Your task to perform on an android device: Open internet settings Image 0: 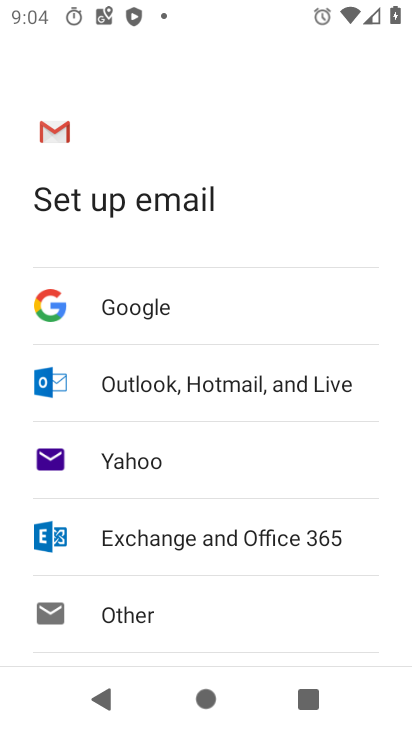
Step 0: press home button
Your task to perform on an android device: Open internet settings Image 1: 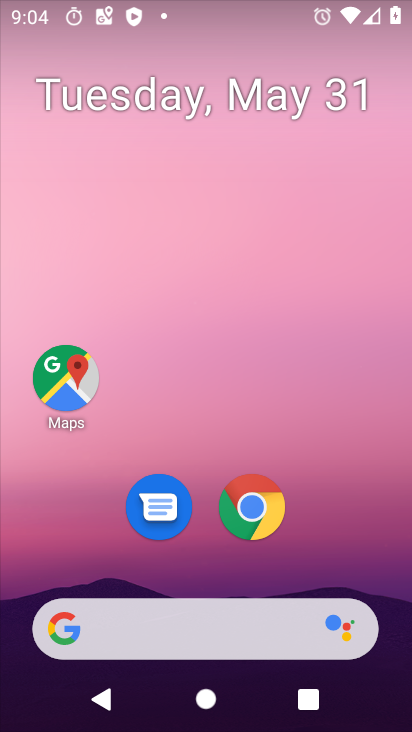
Step 1: drag from (341, 570) to (314, 7)
Your task to perform on an android device: Open internet settings Image 2: 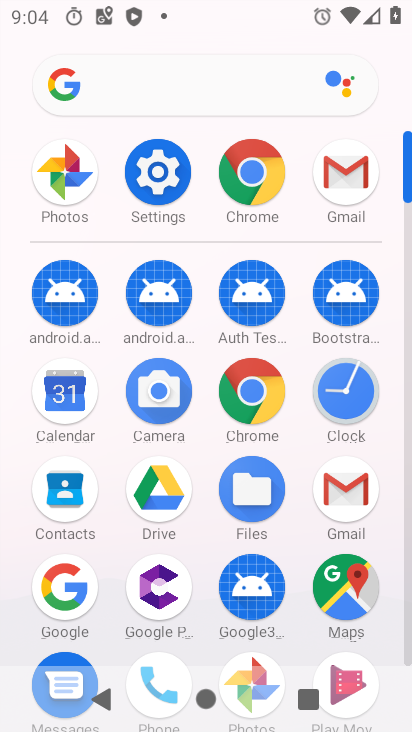
Step 2: click (160, 178)
Your task to perform on an android device: Open internet settings Image 3: 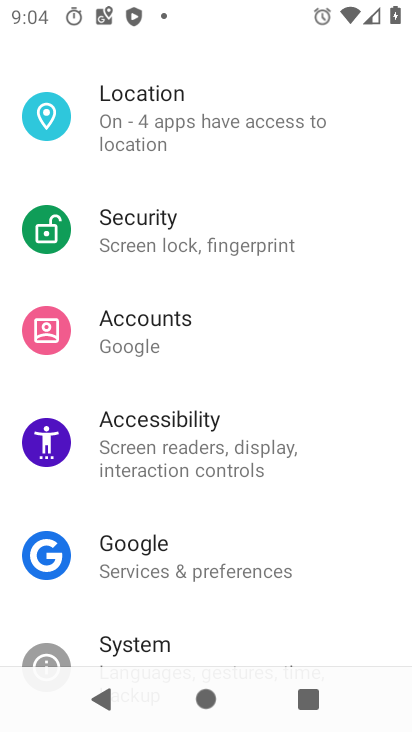
Step 3: drag from (267, 220) to (284, 478)
Your task to perform on an android device: Open internet settings Image 4: 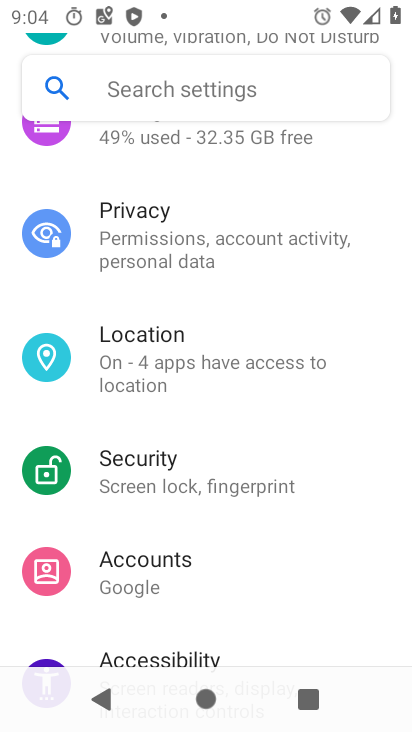
Step 4: drag from (282, 186) to (282, 458)
Your task to perform on an android device: Open internet settings Image 5: 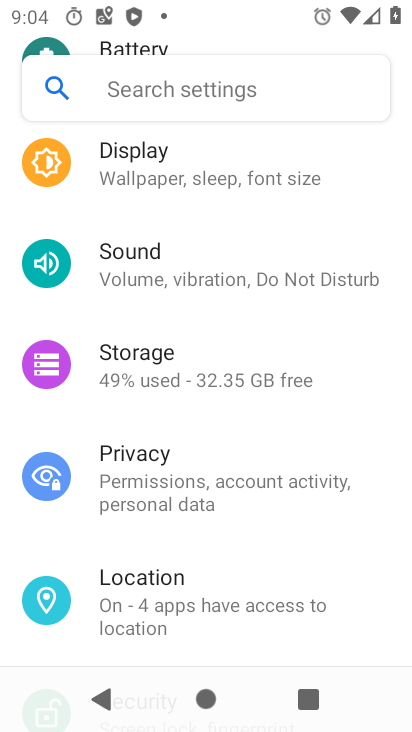
Step 5: drag from (245, 238) to (257, 537)
Your task to perform on an android device: Open internet settings Image 6: 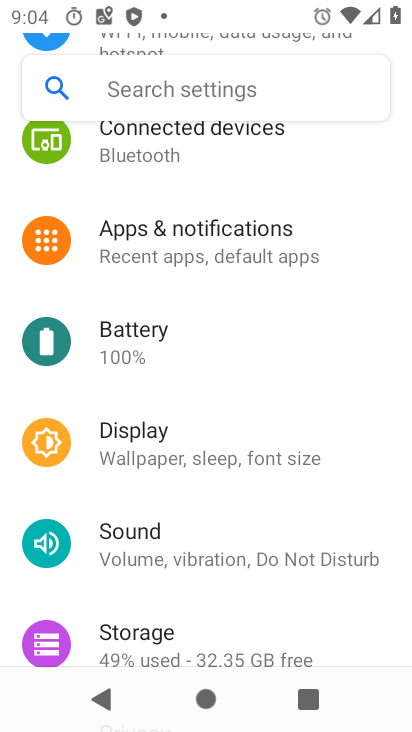
Step 6: drag from (245, 292) to (256, 525)
Your task to perform on an android device: Open internet settings Image 7: 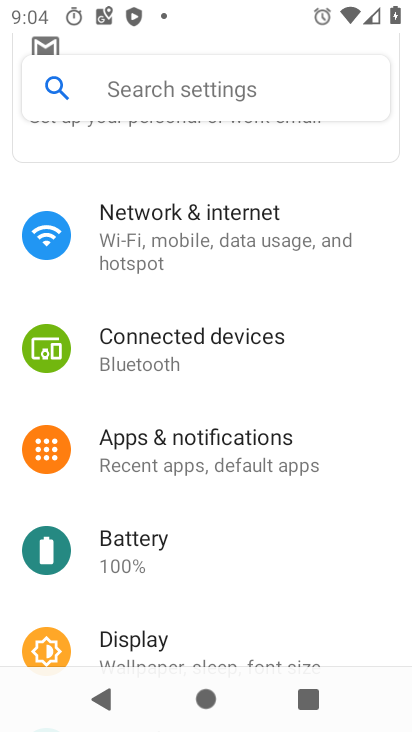
Step 7: click (189, 239)
Your task to perform on an android device: Open internet settings Image 8: 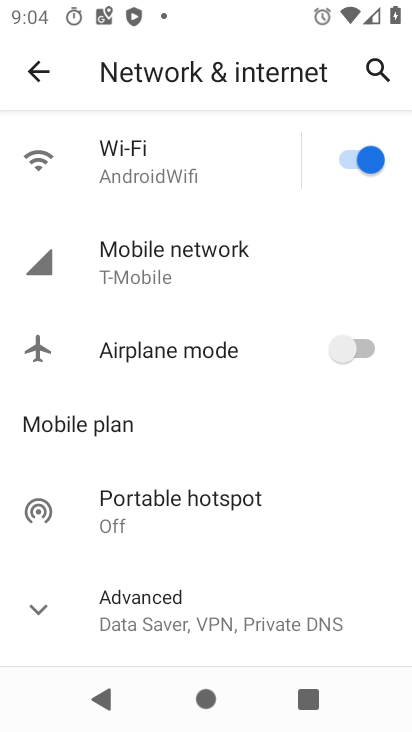
Step 8: task complete